Your task to perform on an android device: open a new tab in the chrome app Image 0: 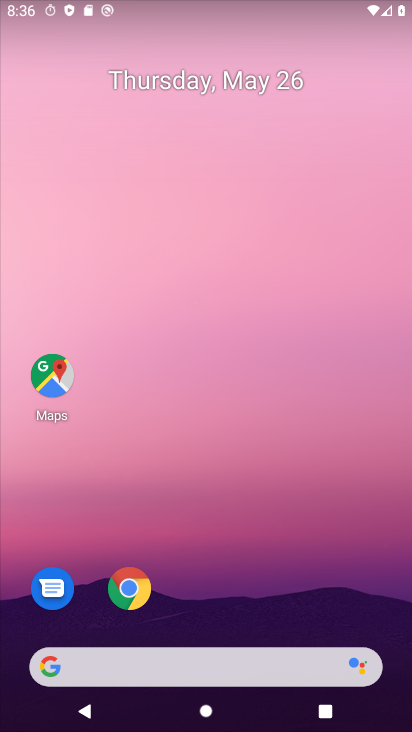
Step 0: click (114, 588)
Your task to perform on an android device: open a new tab in the chrome app Image 1: 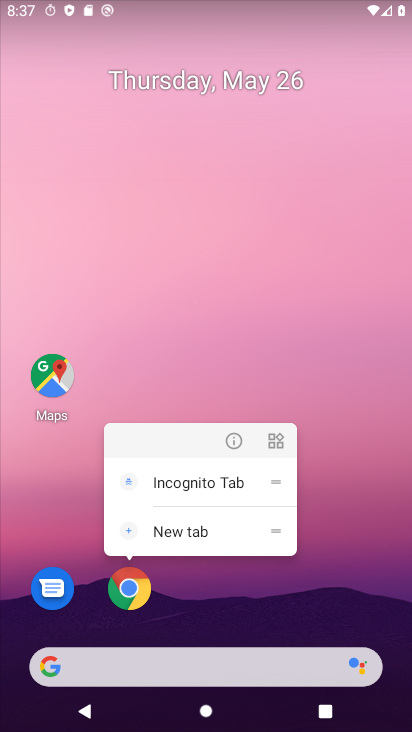
Step 1: click (131, 585)
Your task to perform on an android device: open a new tab in the chrome app Image 2: 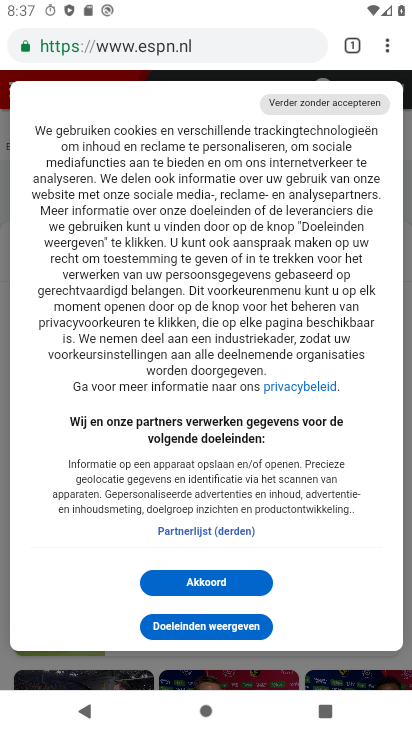
Step 2: click (379, 40)
Your task to perform on an android device: open a new tab in the chrome app Image 3: 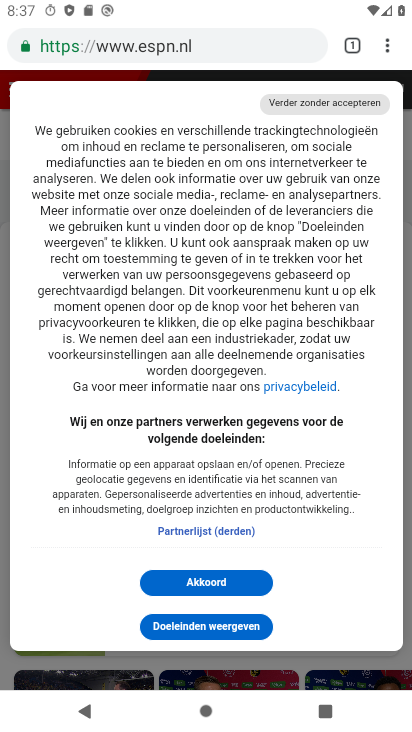
Step 3: click (389, 46)
Your task to perform on an android device: open a new tab in the chrome app Image 4: 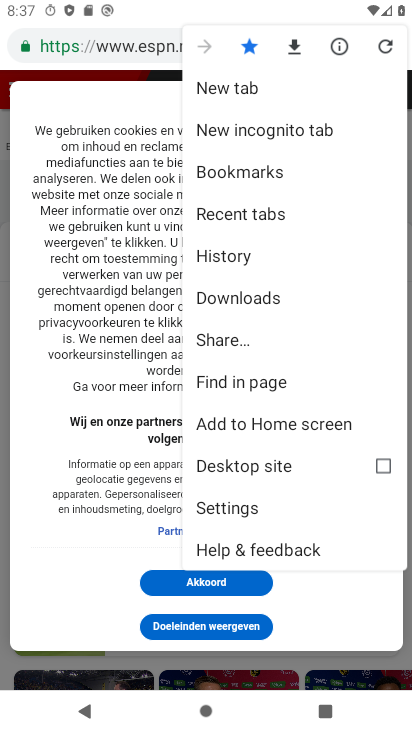
Step 4: click (263, 79)
Your task to perform on an android device: open a new tab in the chrome app Image 5: 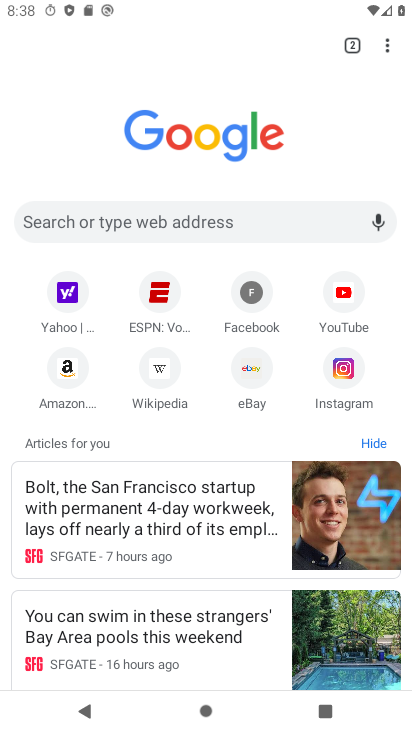
Step 5: task complete